Your task to perform on an android device: set the stopwatch Image 0: 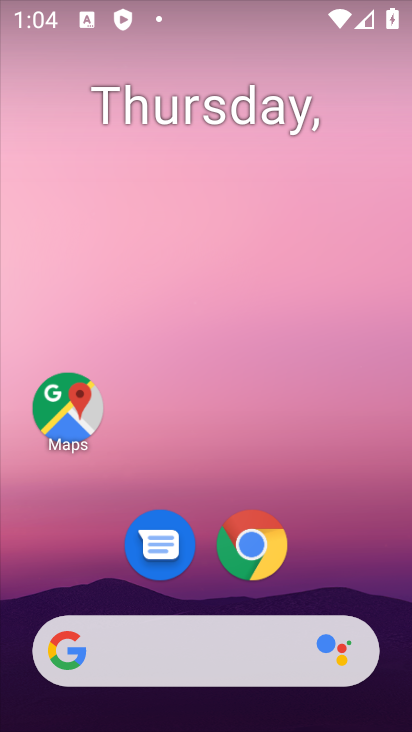
Step 0: drag from (264, 564) to (324, 24)
Your task to perform on an android device: set the stopwatch Image 1: 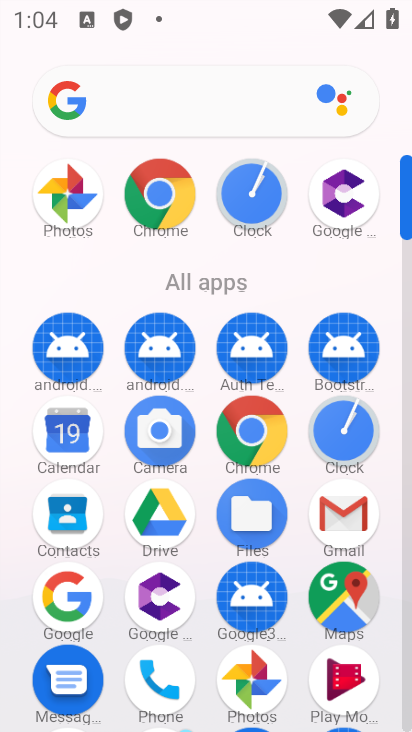
Step 1: click (353, 428)
Your task to perform on an android device: set the stopwatch Image 2: 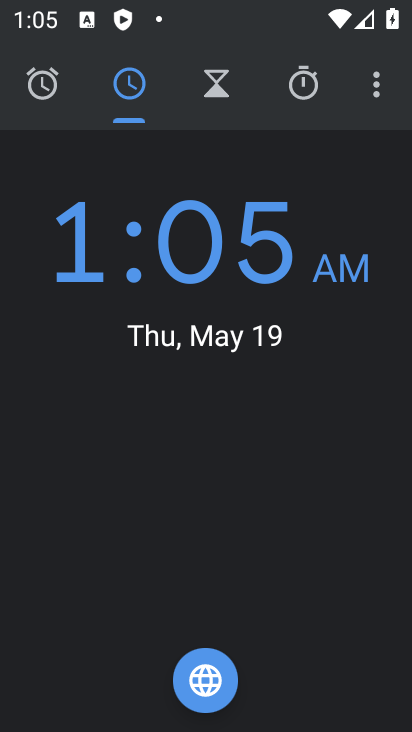
Step 2: click (308, 81)
Your task to perform on an android device: set the stopwatch Image 3: 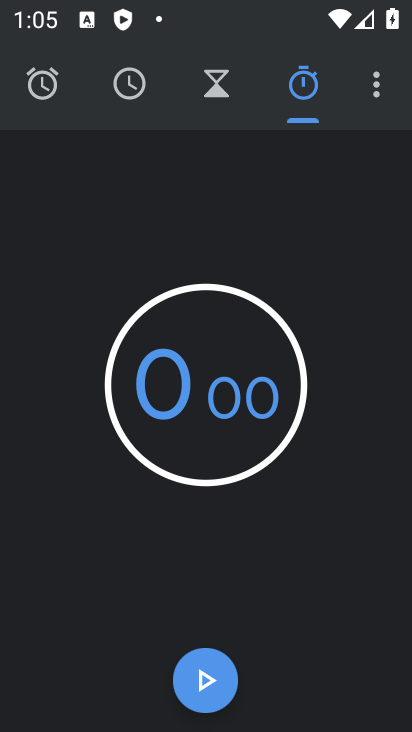
Step 3: click (202, 688)
Your task to perform on an android device: set the stopwatch Image 4: 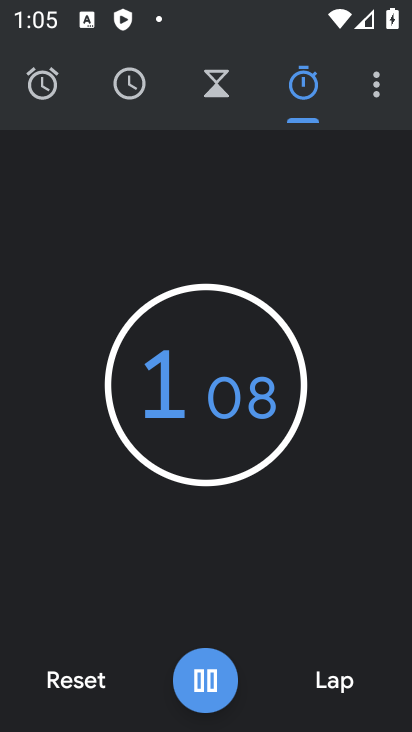
Step 4: task complete